Your task to perform on an android device: check google app version Image 0: 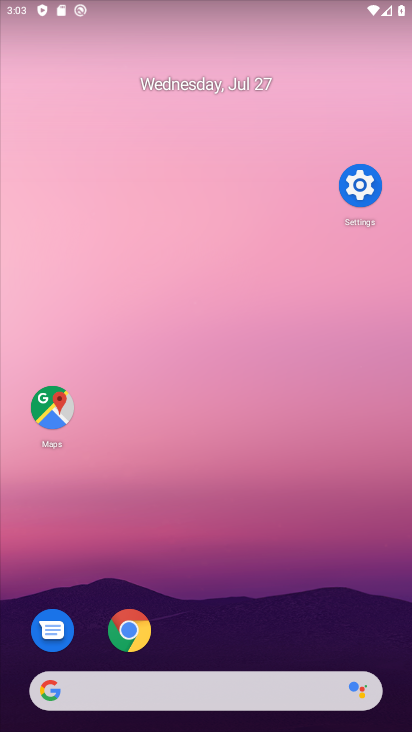
Step 0: click (321, 17)
Your task to perform on an android device: check google app version Image 1: 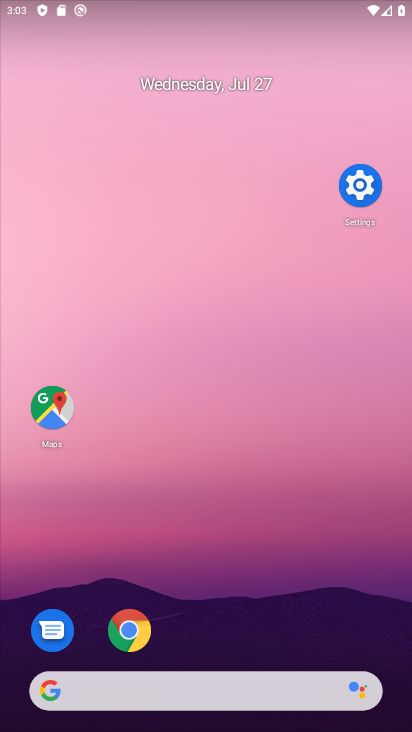
Step 1: click (52, 689)
Your task to perform on an android device: check google app version Image 2: 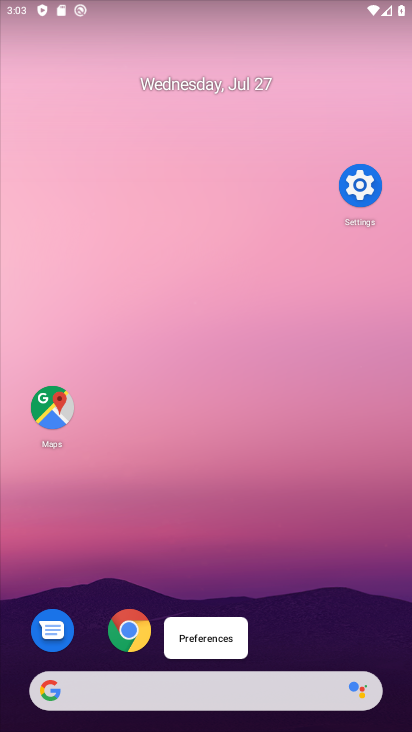
Step 2: drag from (340, 654) to (365, 46)
Your task to perform on an android device: check google app version Image 3: 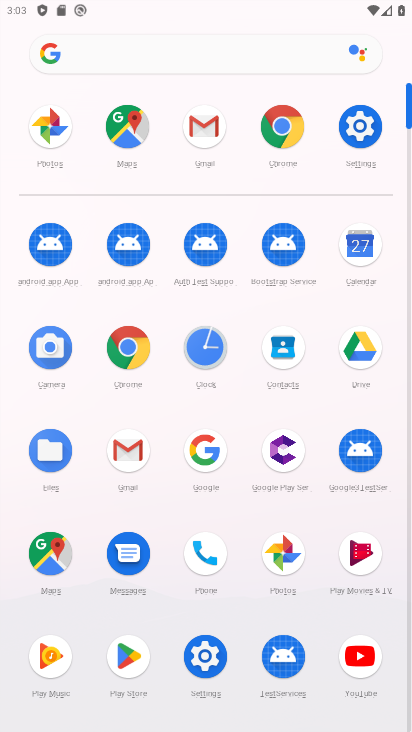
Step 3: click (213, 456)
Your task to perform on an android device: check google app version Image 4: 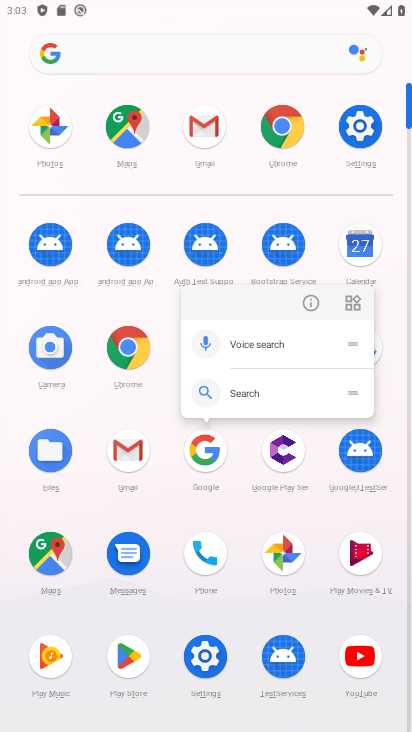
Step 4: click (312, 302)
Your task to perform on an android device: check google app version Image 5: 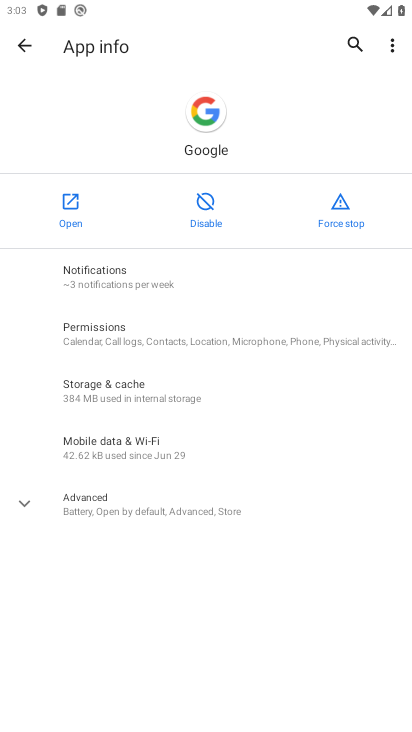
Step 5: click (92, 505)
Your task to perform on an android device: check google app version Image 6: 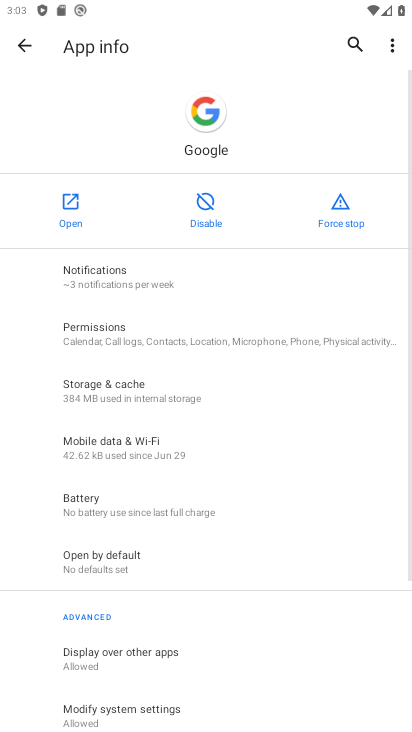
Step 6: task complete